Your task to perform on an android device: What is the capital of Sweden? Image 0: 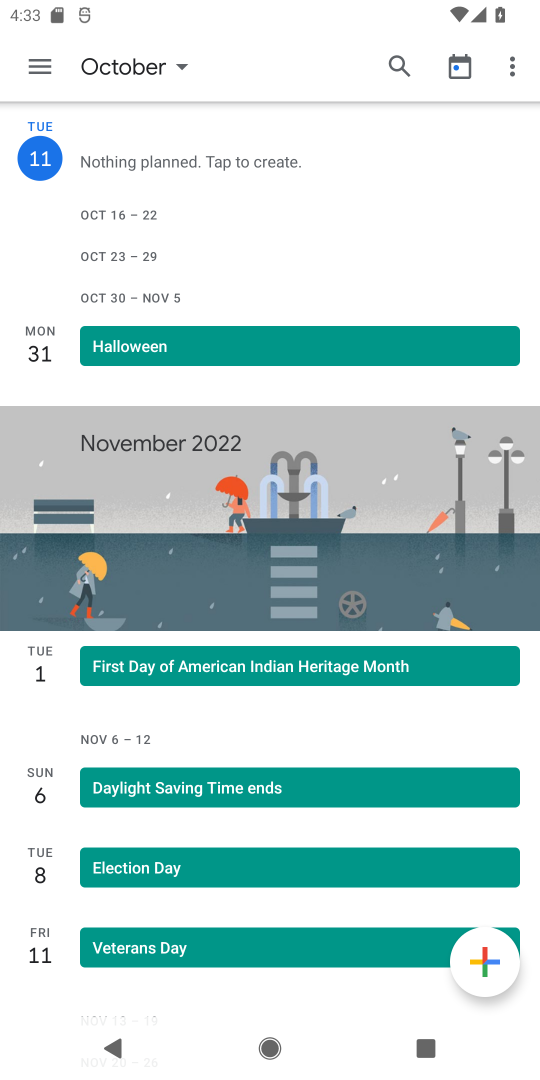
Step 0: press home button
Your task to perform on an android device: What is the capital of Sweden? Image 1: 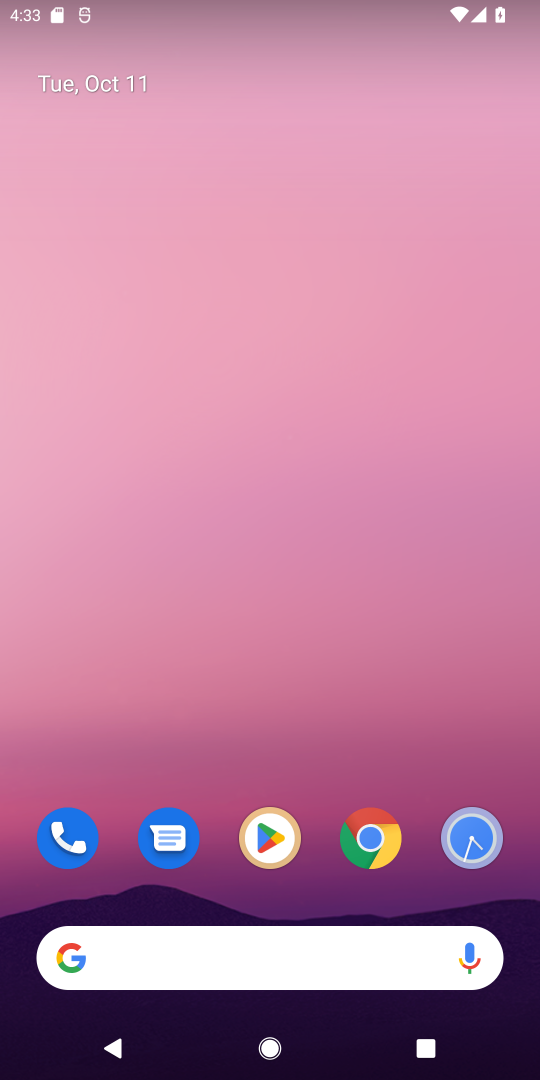
Step 1: click (359, 857)
Your task to perform on an android device: What is the capital of Sweden? Image 2: 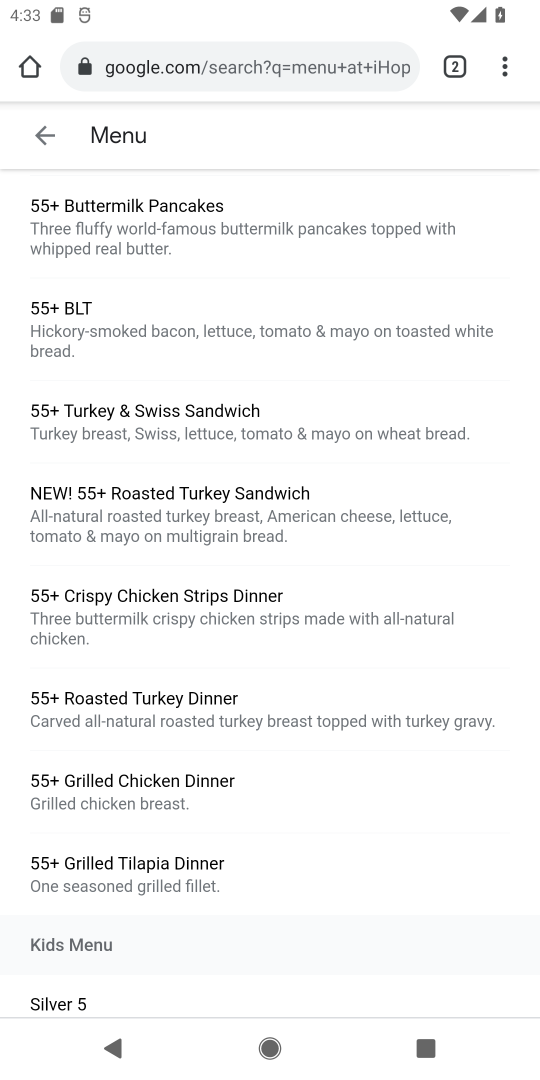
Step 2: click (189, 64)
Your task to perform on an android device: What is the capital of Sweden? Image 3: 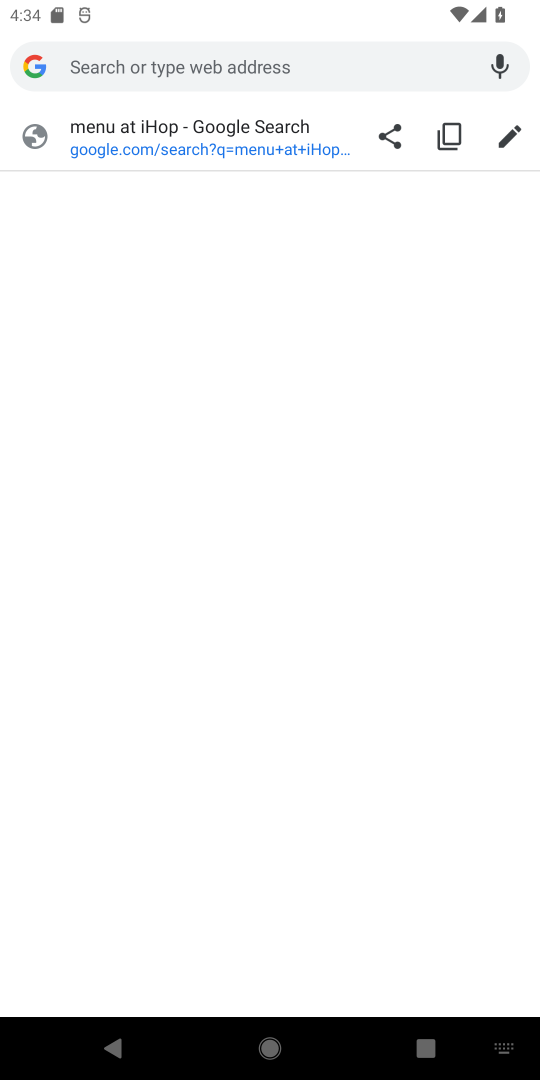
Step 3: type "capital of sweden"
Your task to perform on an android device: What is the capital of Sweden? Image 4: 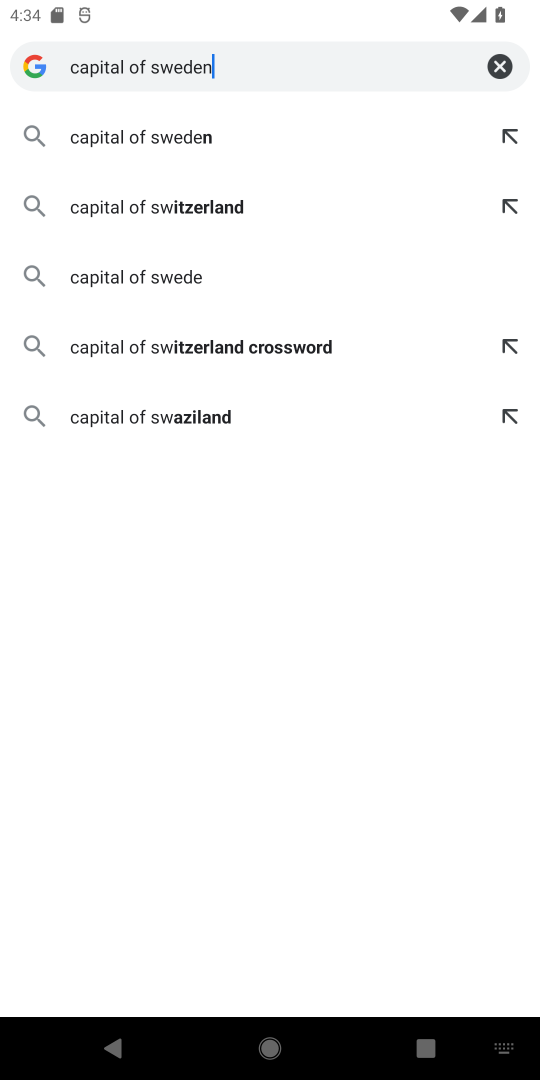
Step 4: type ""
Your task to perform on an android device: What is the capital of Sweden? Image 5: 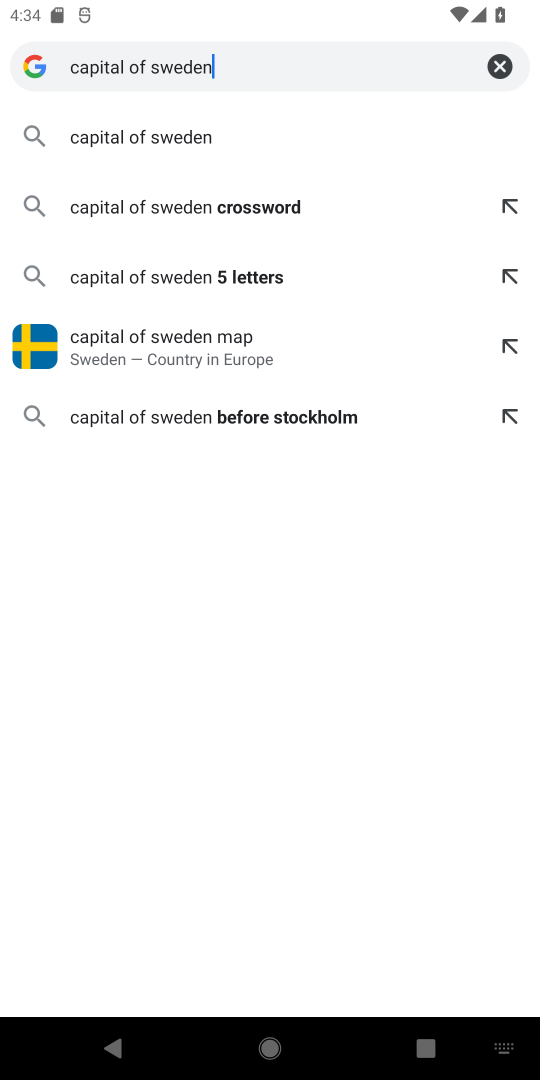
Step 5: click (190, 339)
Your task to perform on an android device: What is the capital of Sweden? Image 6: 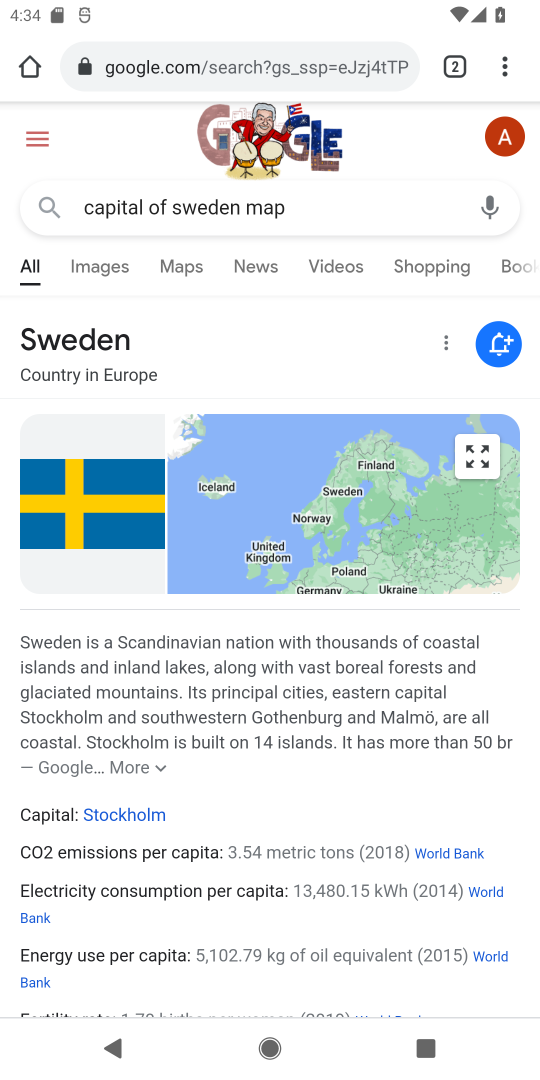
Step 6: drag from (200, 736) to (306, 831)
Your task to perform on an android device: What is the capital of Sweden? Image 7: 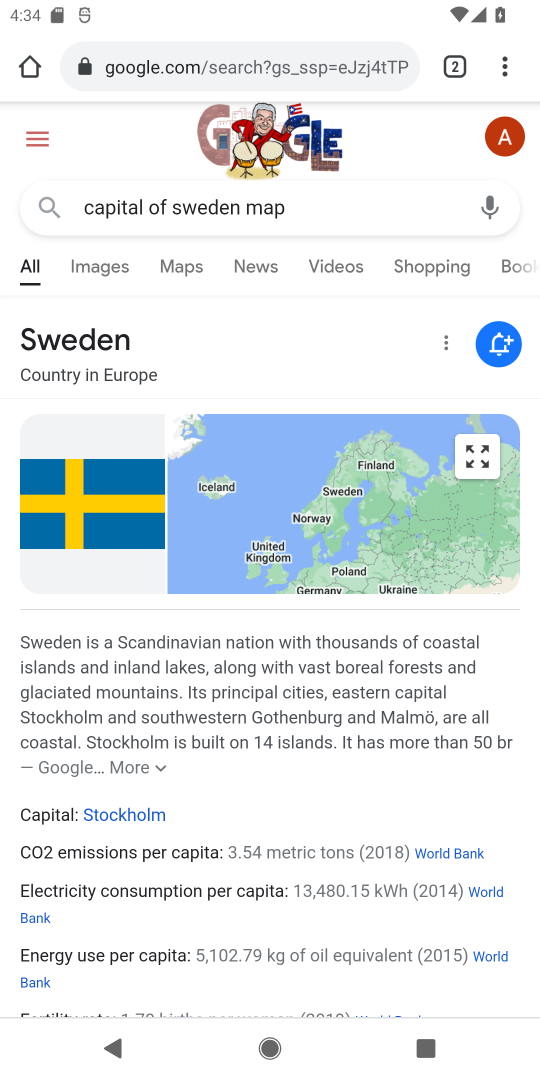
Step 7: drag from (343, 740) to (428, 312)
Your task to perform on an android device: What is the capital of Sweden? Image 8: 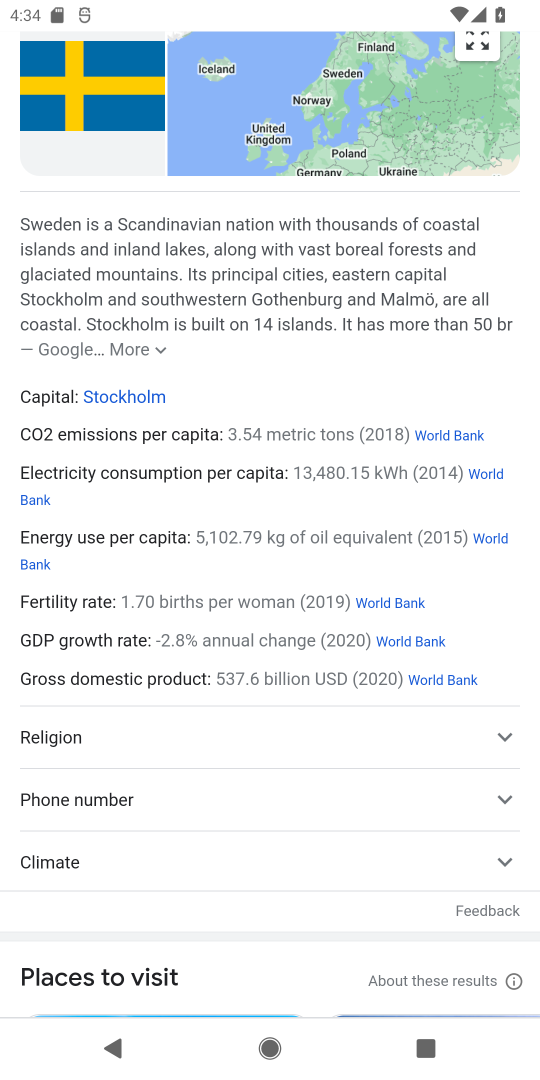
Step 8: drag from (318, 824) to (351, 476)
Your task to perform on an android device: What is the capital of Sweden? Image 9: 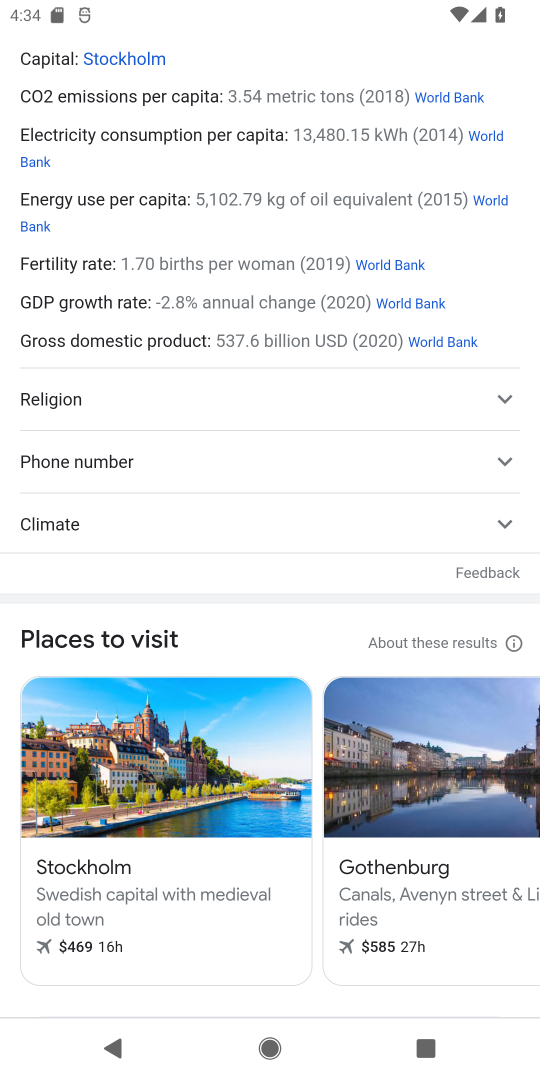
Step 9: drag from (247, 975) to (338, 534)
Your task to perform on an android device: What is the capital of Sweden? Image 10: 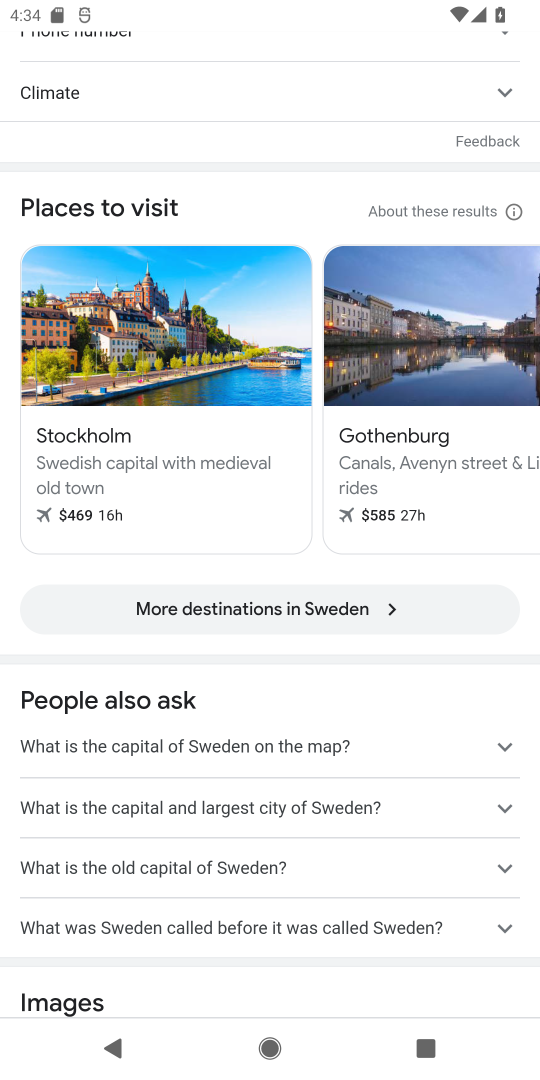
Step 10: drag from (255, 469) to (344, 935)
Your task to perform on an android device: What is the capital of Sweden? Image 11: 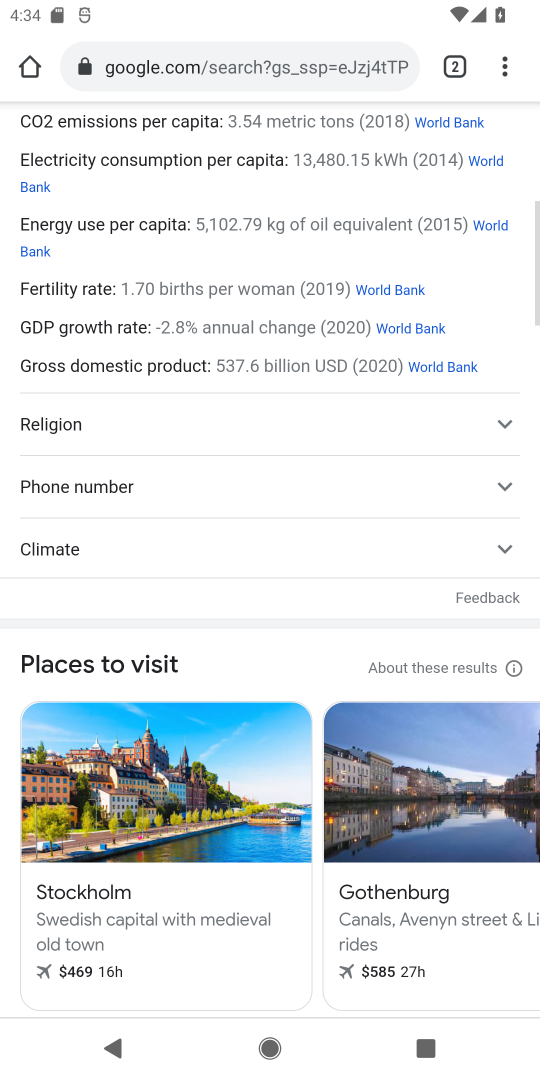
Step 11: drag from (334, 589) to (338, 858)
Your task to perform on an android device: What is the capital of Sweden? Image 12: 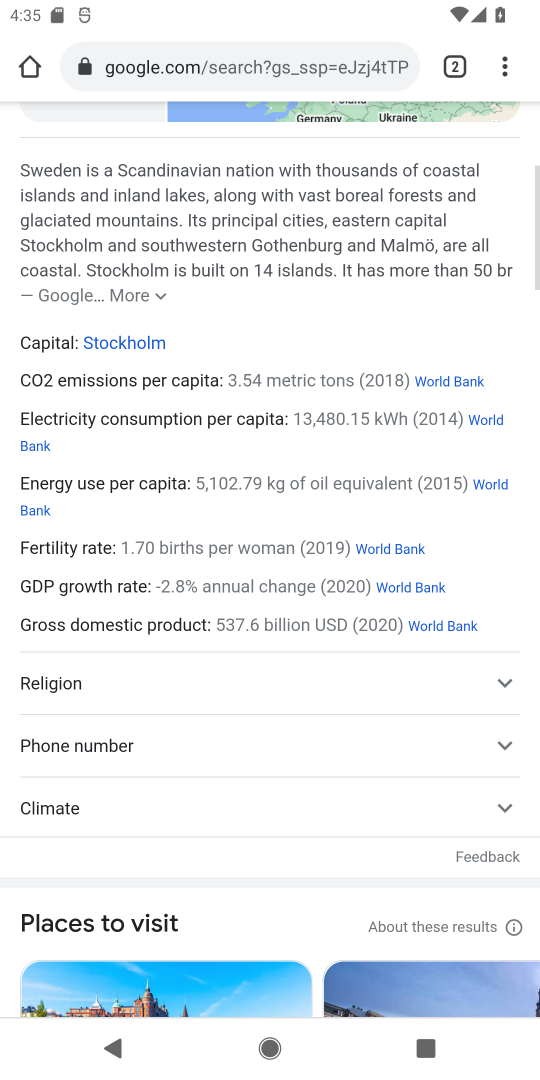
Step 12: drag from (350, 370) to (366, 878)
Your task to perform on an android device: What is the capital of Sweden? Image 13: 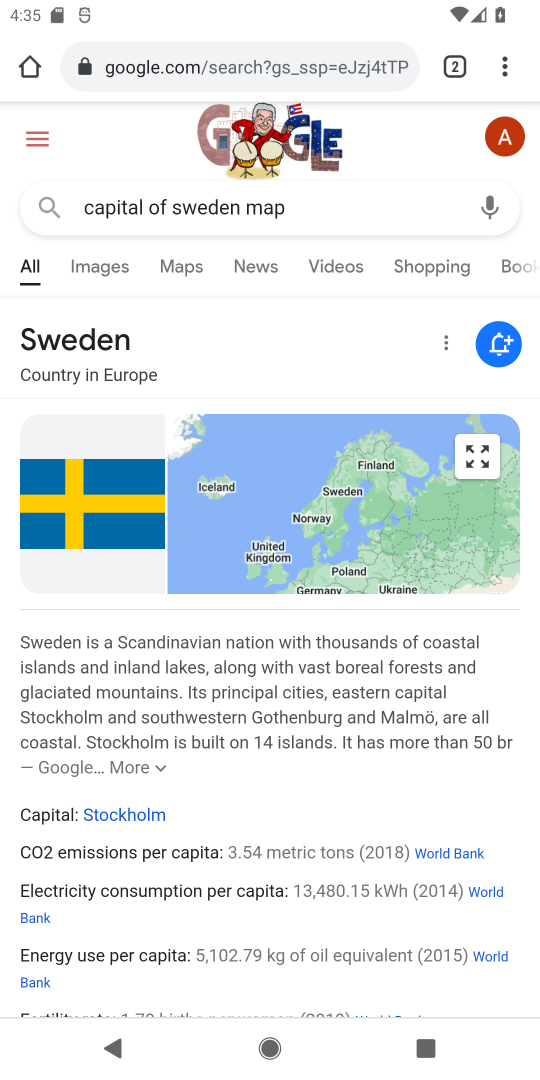
Step 13: drag from (380, 700) to (489, 902)
Your task to perform on an android device: What is the capital of Sweden? Image 14: 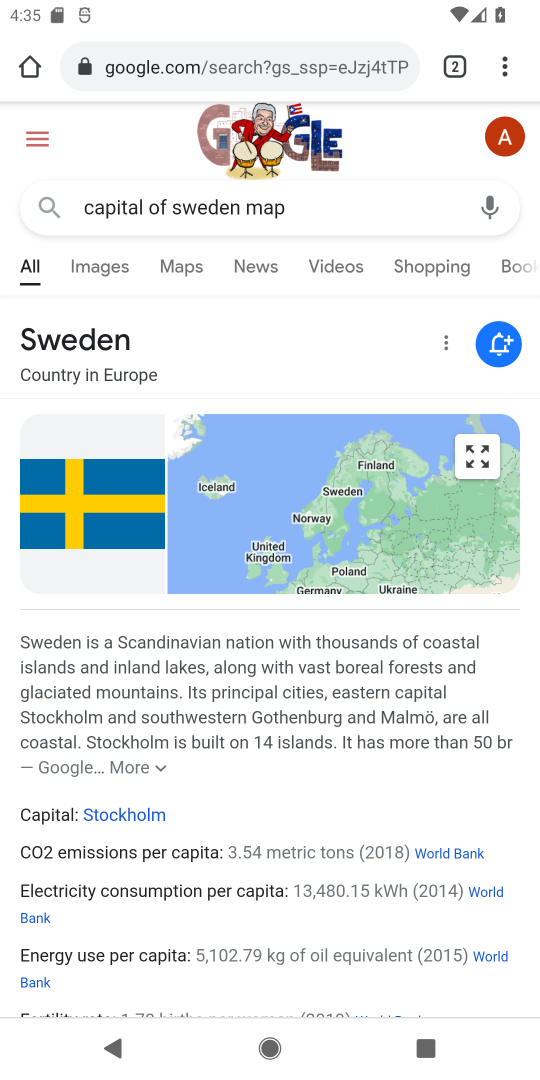
Step 14: drag from (206, 720) to (256, 374)
Your task to perform on an android device: What is the capital of Sweden? Image 15: 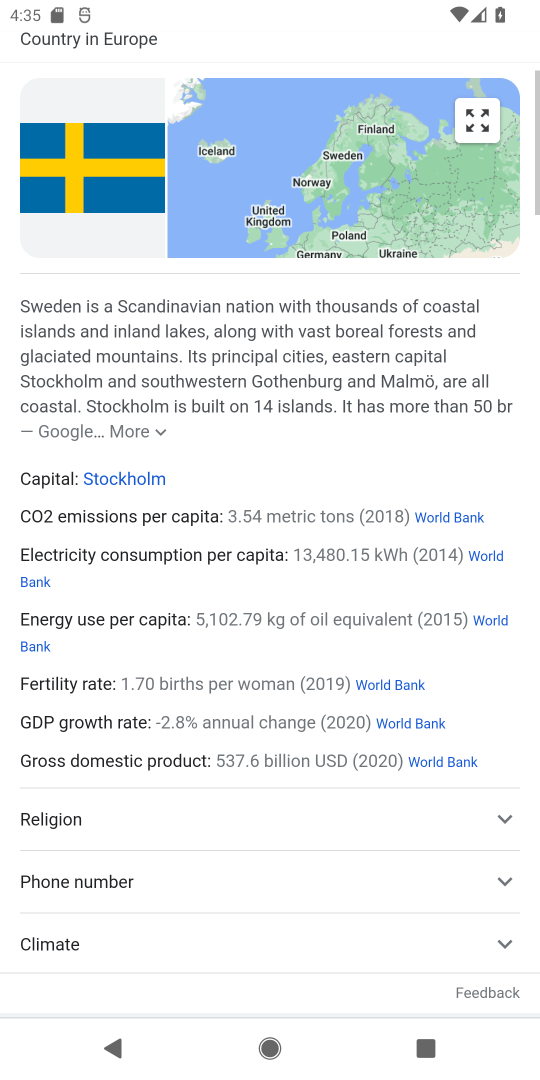
Step 15: drag from (247, 376) to (235, 999)
Your task to perform on an android device: What is the capital of Sweden? Image 16: 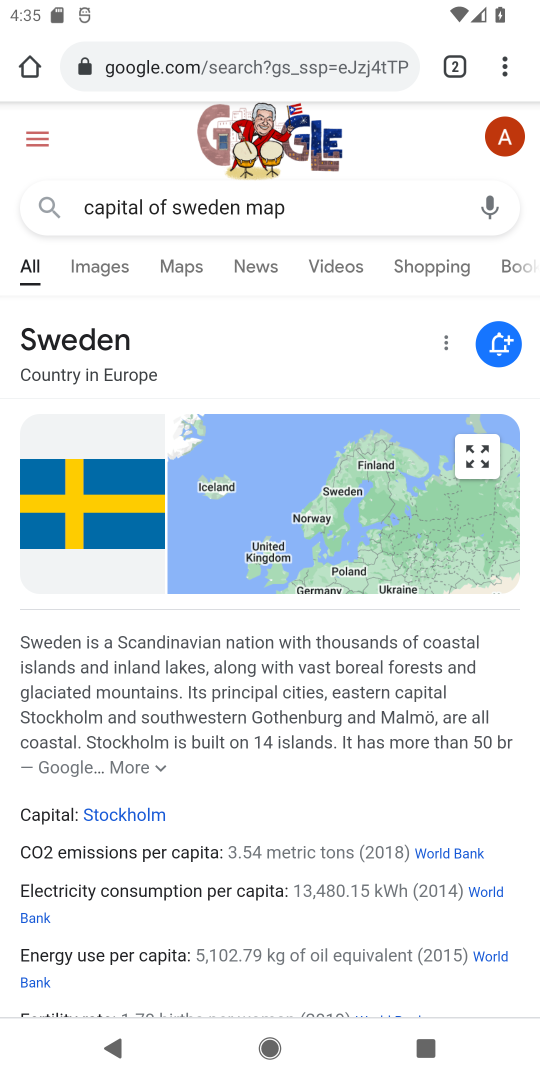
Step 16: drag from (211, 689) to (204, 792)
Your task to perform on an android device: What is the capital of Sweden? Image 17: 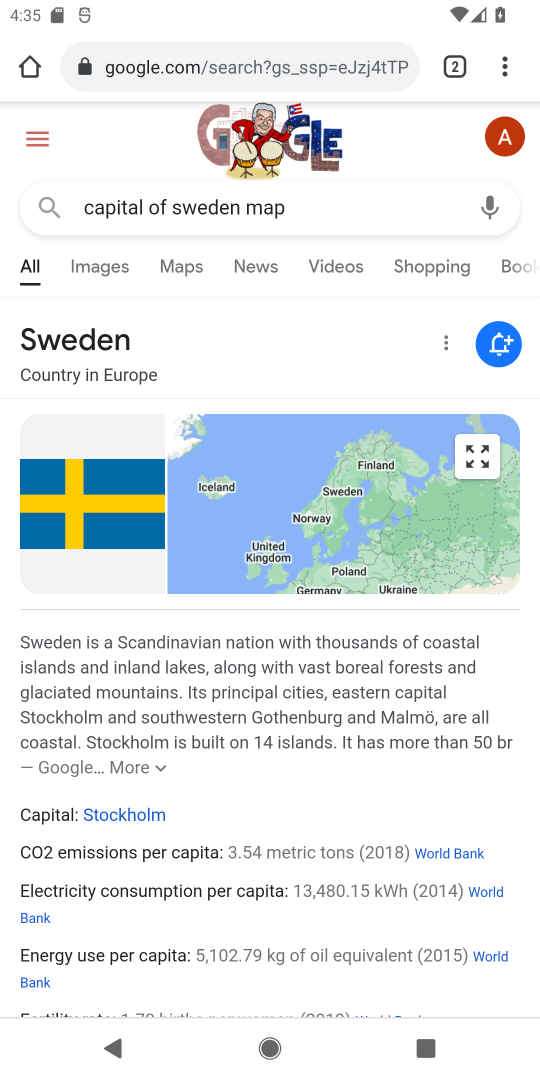
Step 17: click (153, 767)
Your task to perform on an android device: What is the capital of Sweden? Image 18: 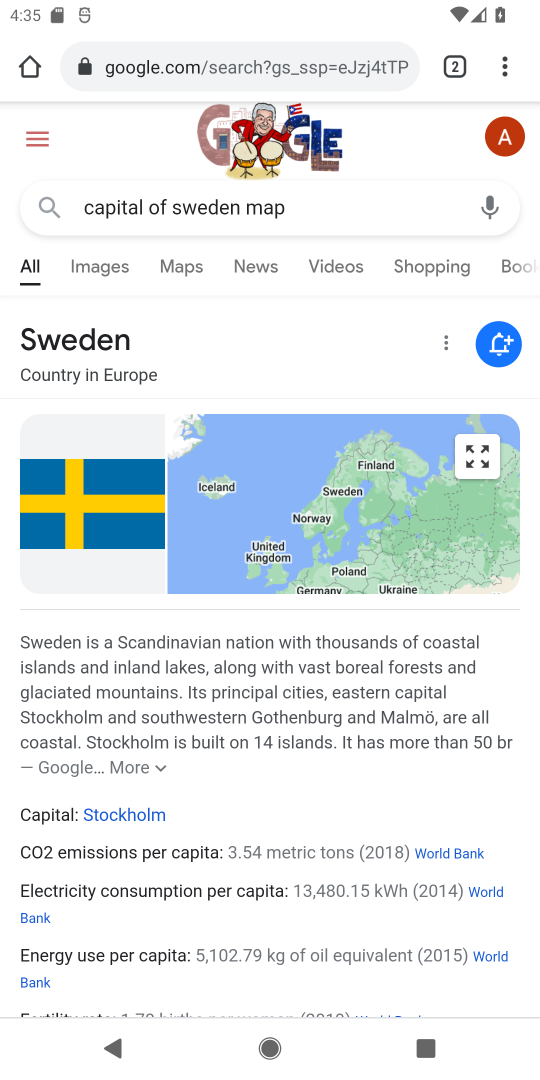
Step 18: click (115, 765)
Your task to perform on an android device: What is the capital of Sweden? Image 19: 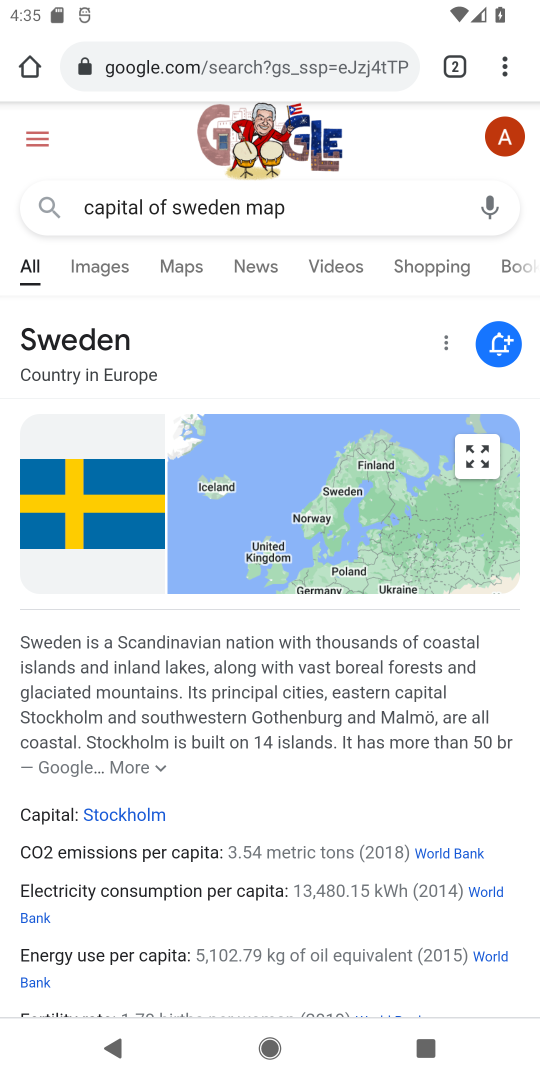
Step 19: click (160, 766)
Your task to perform on an android device: What is the capital of Sweden? Image 20: 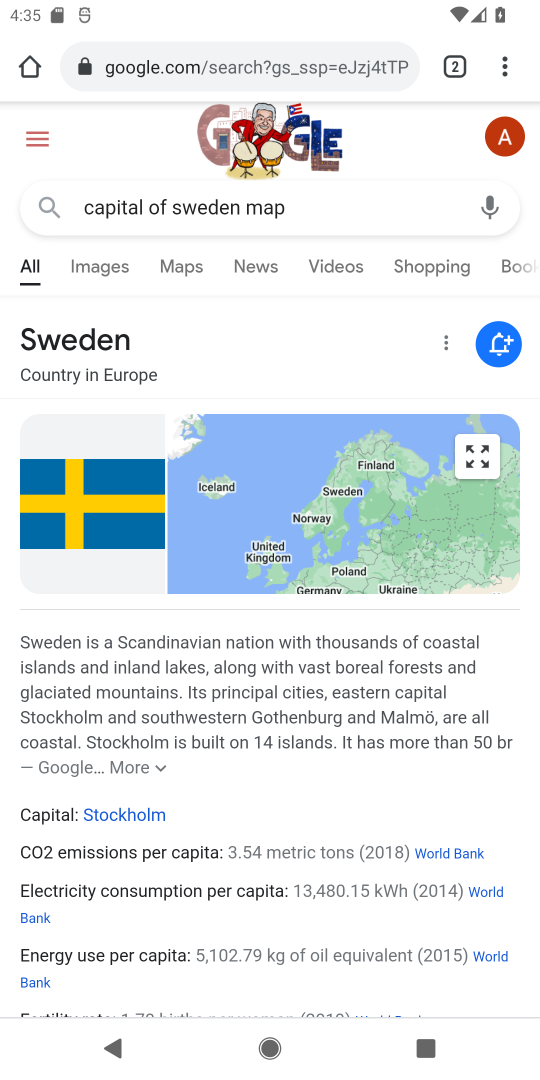
Step 20: drag from (292, 684) to (349, 317)
Your task to perform on an android device: What is the capital of Sweden? Image 21: 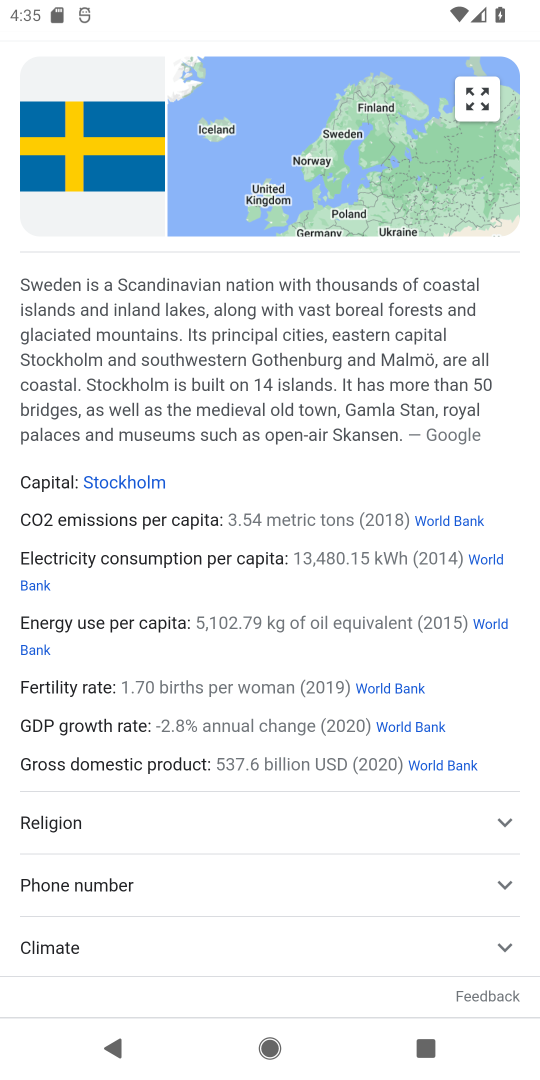
Step 21: drag from (250, 780) to (324, 531)
Your task to perform on an android device: What is the capital of Sweden? Image 22: 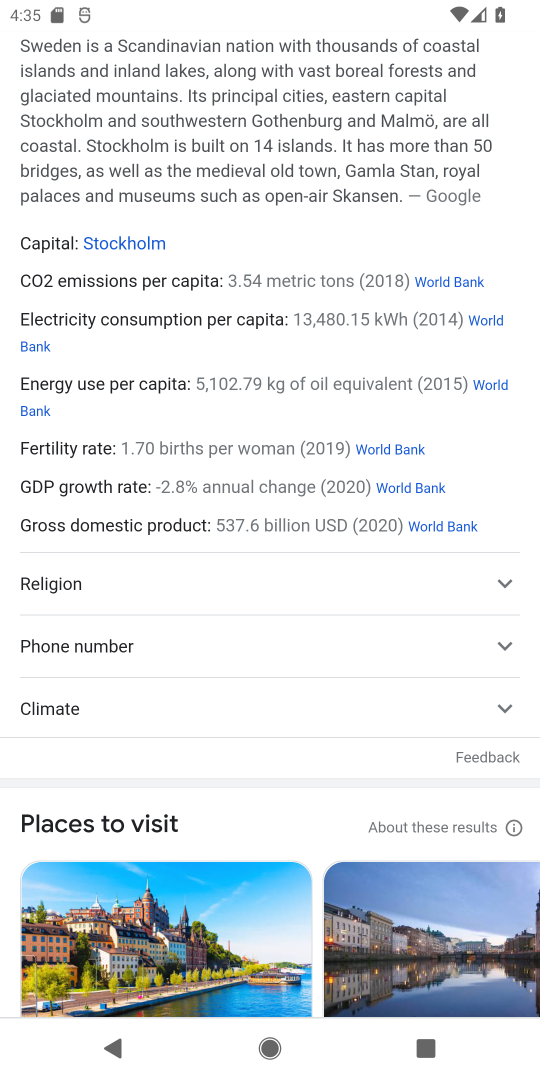
Step 22: drag from (201, 941) to (302, 340)
Your task to perform on an android device: What is the capital of Sweden? Image 23: 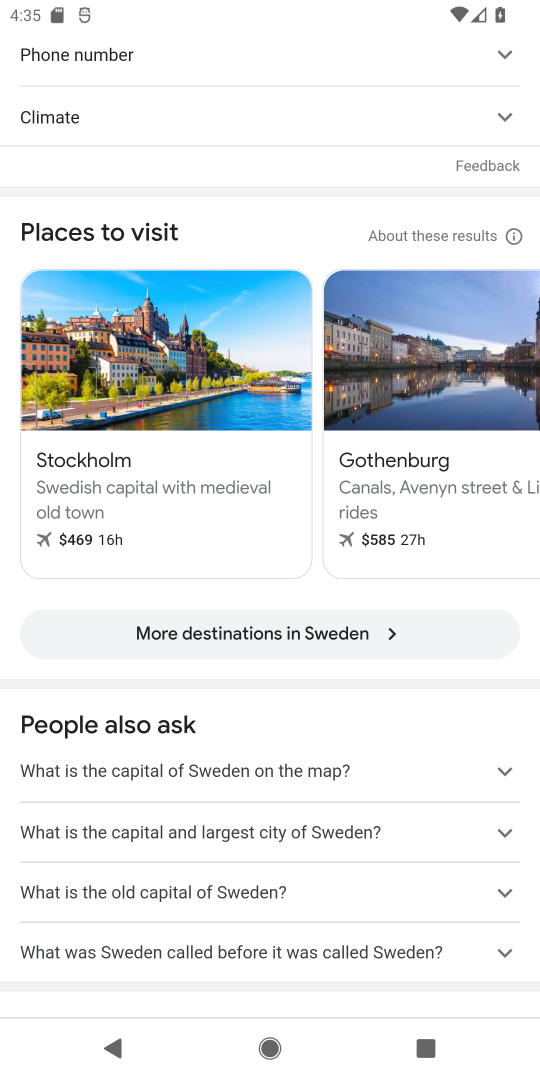
Step 23: click (135, 771)
Your task to perform on an android device: What is the capital of Sweden? Image 24: 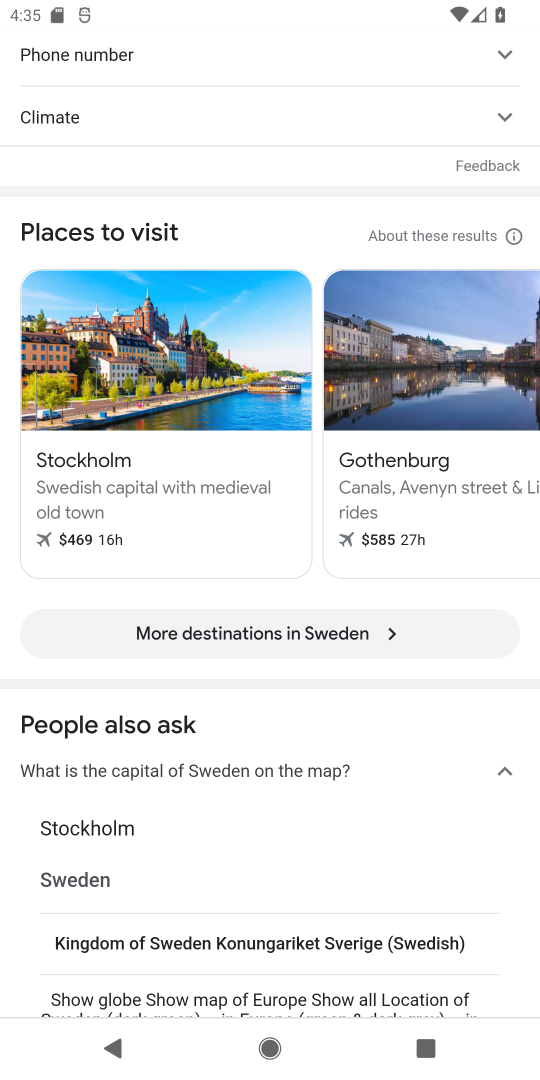
Step 24: task complete